Your task to perform on an android device: Open Chrome and go to settings Image 0: 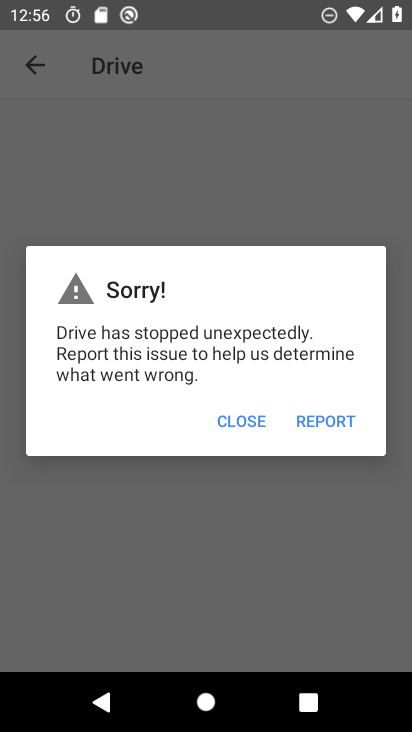
Step 0: press home button
Your task to perform on an android device: Open Chrome and go to settings Image 1: 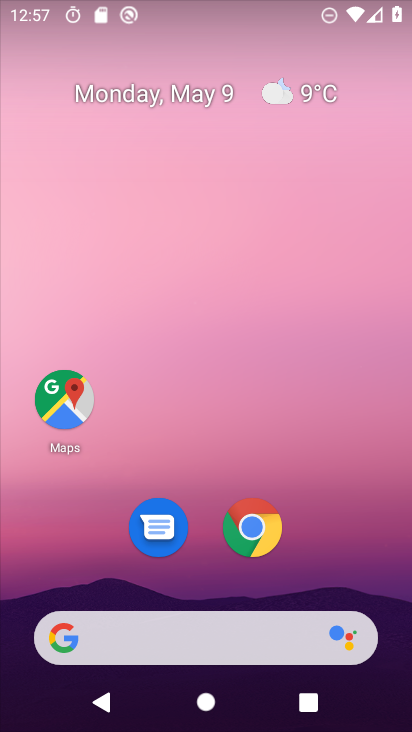
Step 1: click (249, 514)
Your task to perform on an android device: Open Chrome and go to settings Image 2: 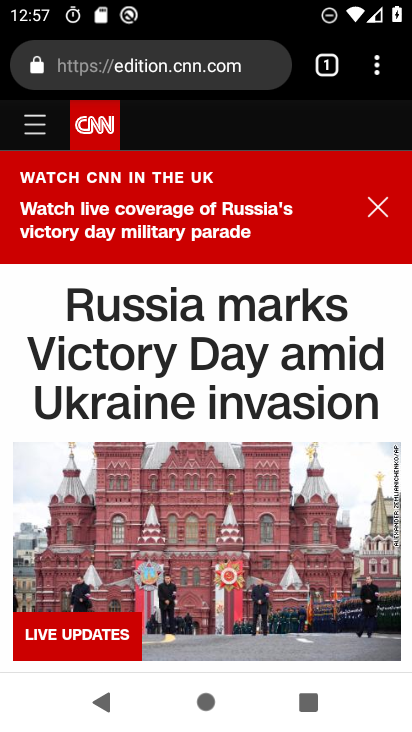
Step 2: task complete